Your task to perform on an android device: Go to display settings Image 0: 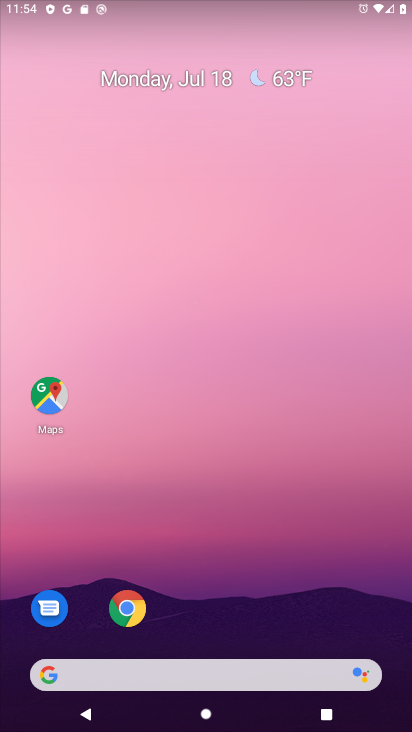
Step 0: drag from (285, 587) to (235, 160)
Your task to perform on an android device: Go to display settings Image 1: 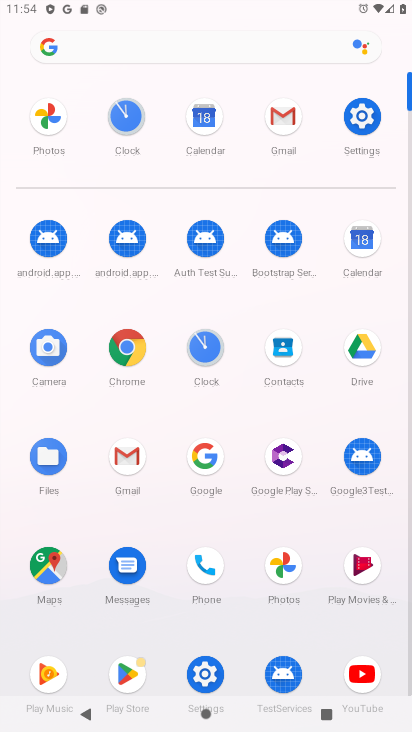
Step 1: click (367, 114)
Your task to perform on an android device: Go to display settings Image 2: 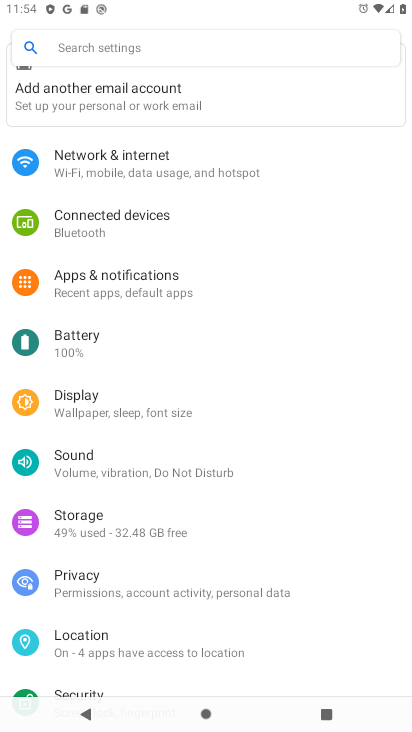
Step 2: click (198, 415)
Your task to perform on an android device: Go to display settings Image 3: 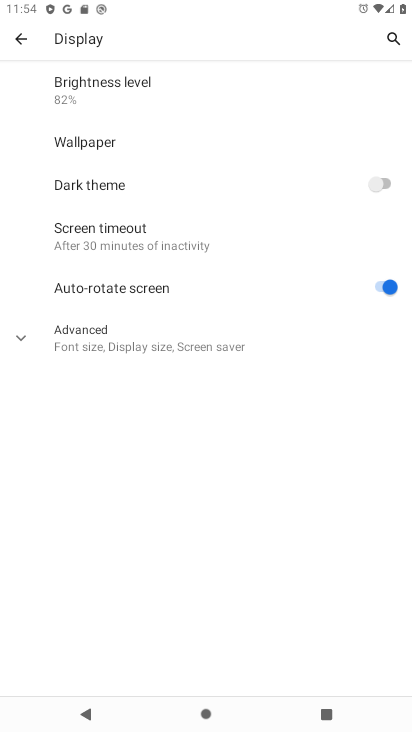
Step 3: task complete